Your task to perform on an android device: turn off wifi Image 0: 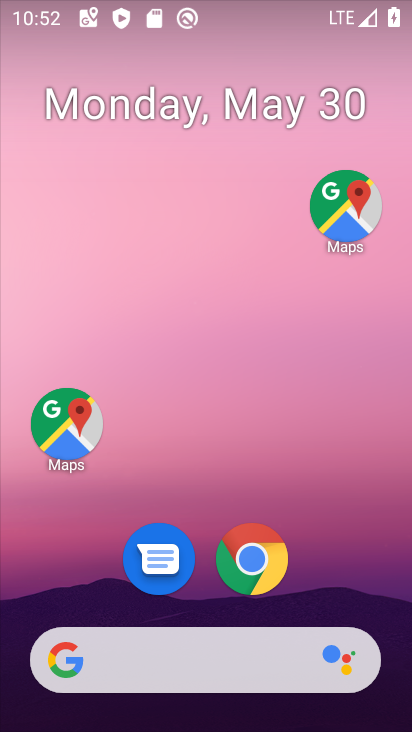
Step 0: drag from (312, 572) to (266, 99)
Your task to perform on an android device: turn off wifi Image 1: 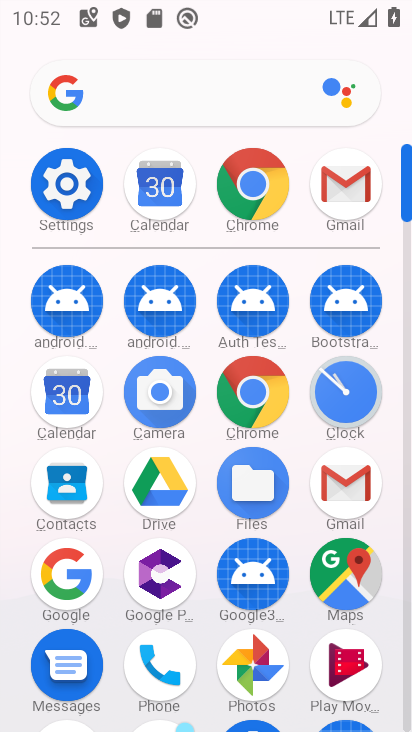
Step 1: click (58, 173)
Your task to perform on an android device: turn off wifi Image 2: 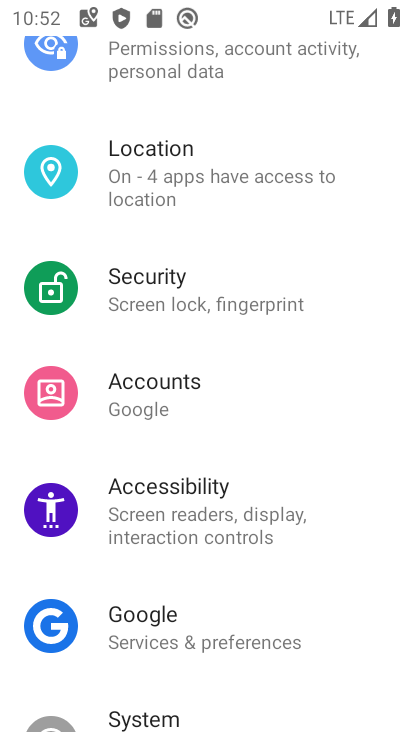
Step 2: drag from (249, 139) to (310, 650)
Your task to perform on an android device: turn off wifi Image 3: 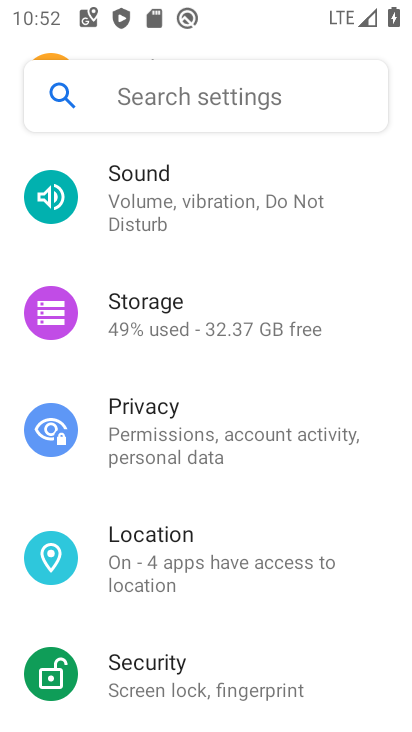
Step 3: drag from (198, 205) to (213, 635)
Your task to perform on an android device: turn off wifi Image 4: 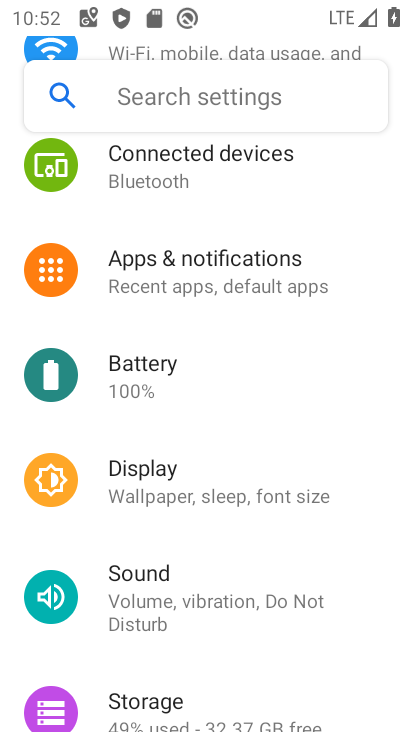
Step 4: drag from (221, 153) to (229, 650)
Your task to perform on an android device: turn off wifi Image 5: 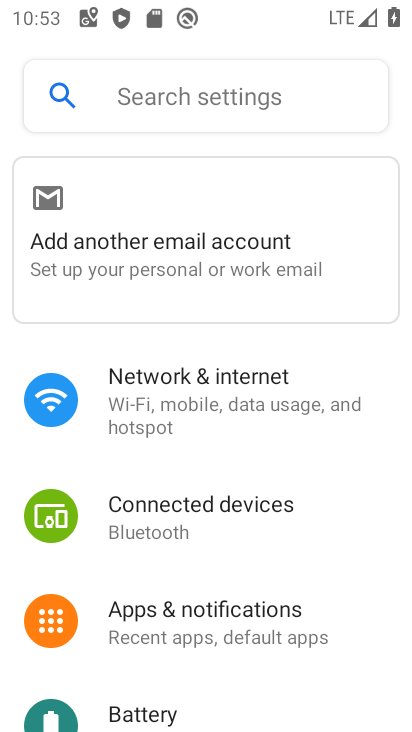
Step 5: click (177, 403)
Your task to perform on an android device: turn off wifi Image 6: 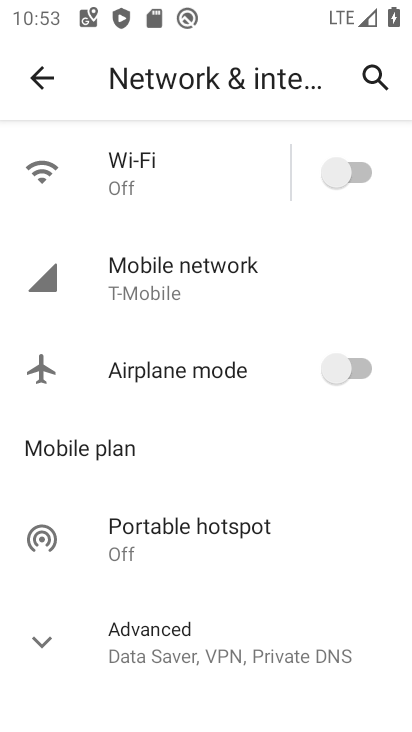
Step 6: task complete